Your task to perform on an android device: Open my contact list Image 0: 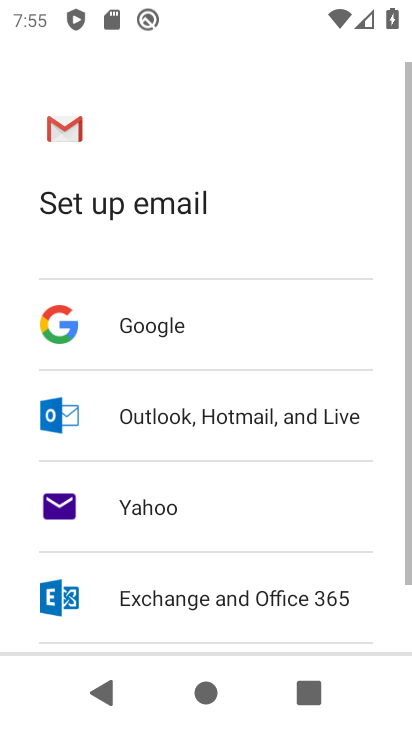
Step 0: drag from (254, 631) to (279, 65)
Your task to perform on an android device: Open my contact list Image 1: 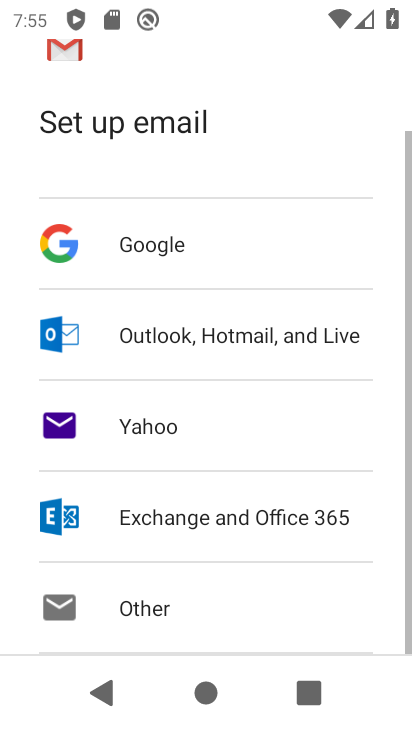
Step 1: press home button
Your task to perform on an android device: Open my contact list Image 2: 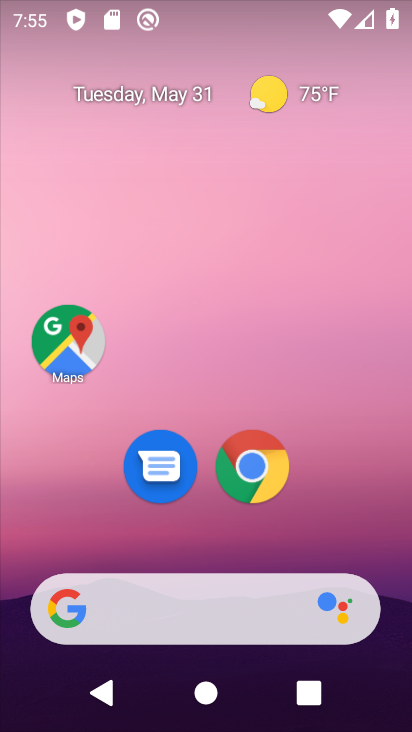
Step 2: drag from (184, 538) to (228, 139)
Your task to perform on an android device: Open my contact list Image 3: 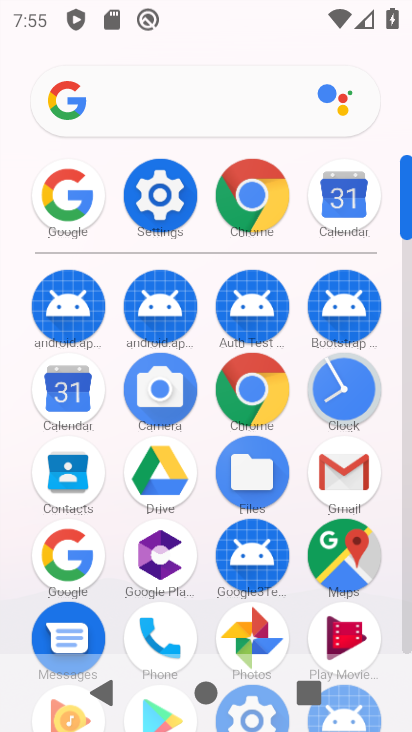
Step 3: click (65, 473)
Your task to perform on an android device: Open my contact list Image 4: 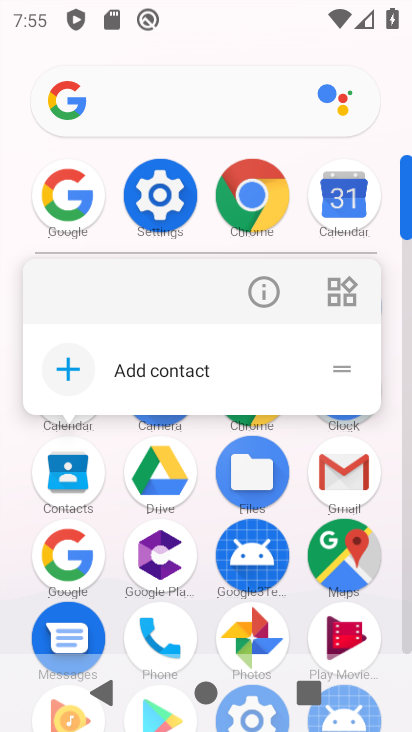
Step 4: click (267, 303)
Your task to perform on an android device: Open my contact list Image 5: 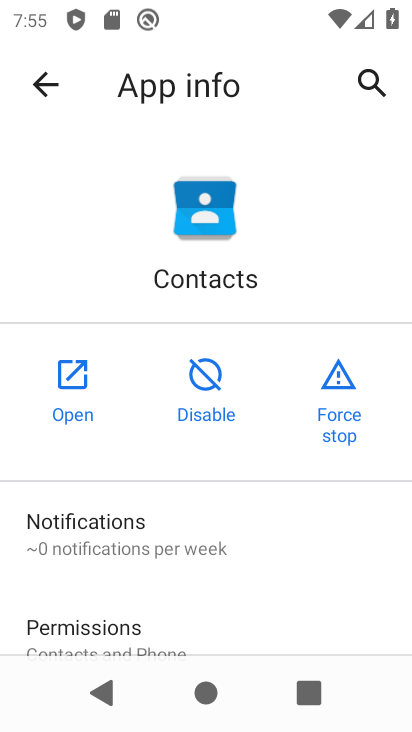
Step 5: click (92, 384)
Your task to perform on an android device: Open my contact list Image 6: 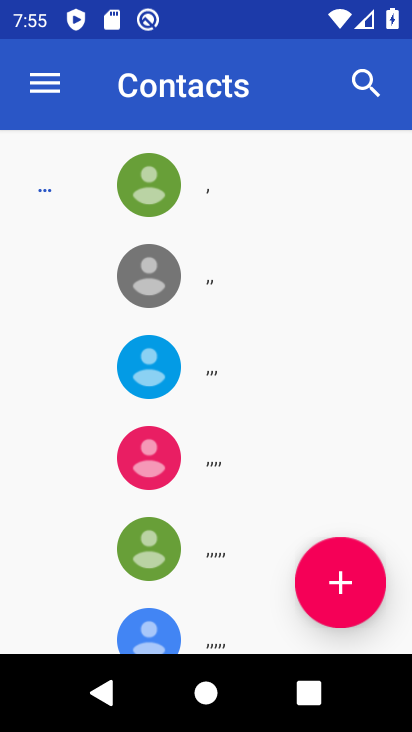
Step 6: task complete